Your task to perform on an android device: open the mobile data screen to see how much data has been used Image 0: 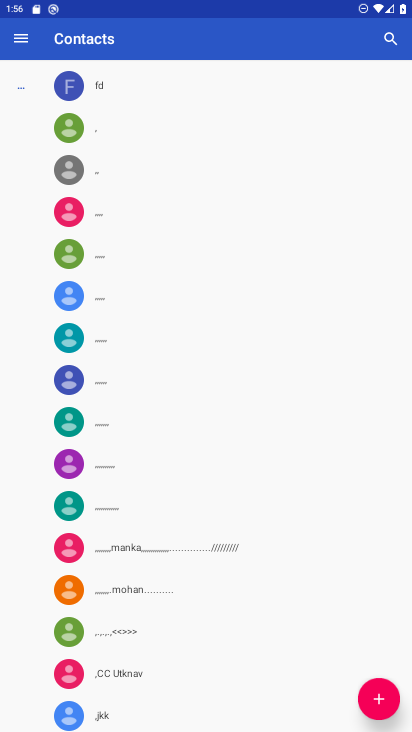
Step 0: press home button
Your task to perform on an android device: open the mobile data screen to see how much data has been used Image 1: 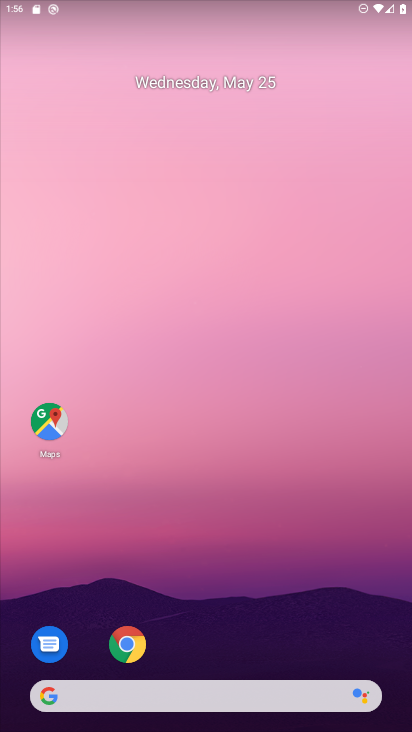
Step 1: drag from (206, 634) to (181, 293)
Your task to perform on an android device: open the mobile data screen to see how much data has been used Image 2: 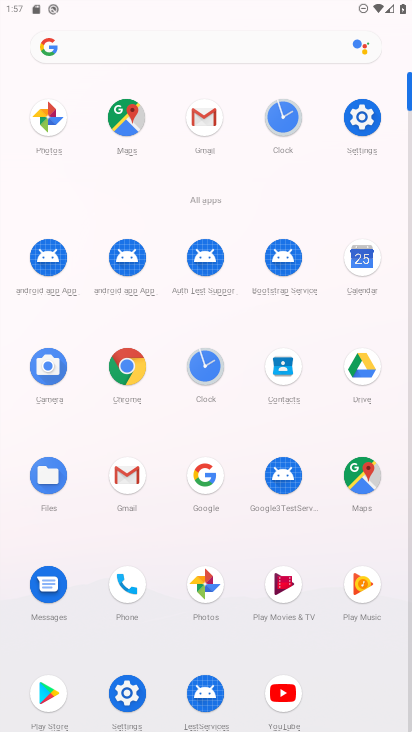
Step 2: click (370, 137)
Your task to perform on an android device: open the mobile data screen to see how much data has been used Image 3: 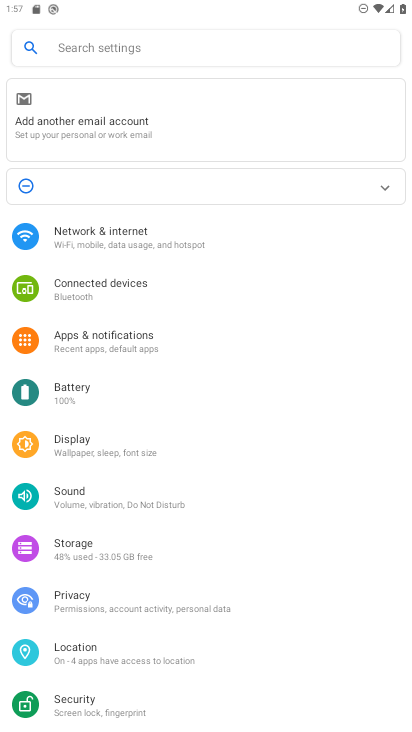
Step 3: click (109, 247)
Your task to perform on an android device: open the mobile data screen to see how much data has been used Image 4: 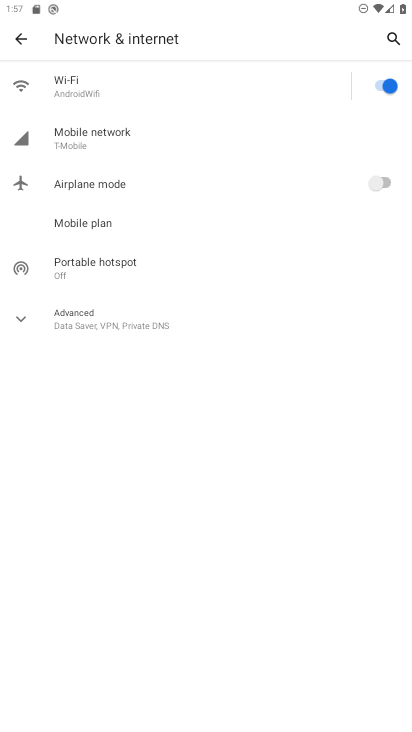
Step 4: click (130, 134)
Your task to perform on an android device: open the mobile data screen to see how much data has been used Image 5: 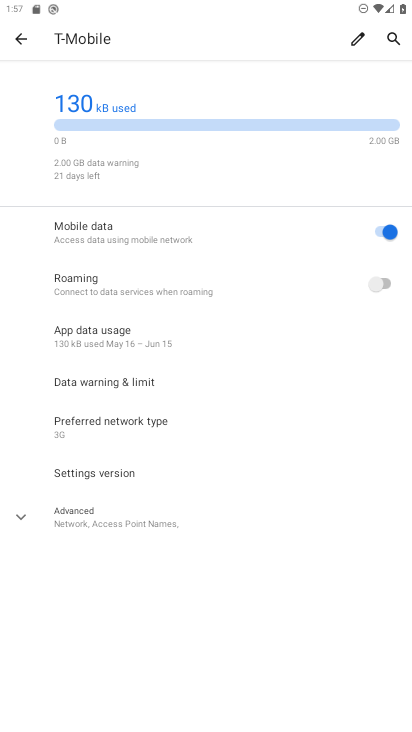
Step 5: task complete